Your task to perform on an android device: change notifications settings Image 0: 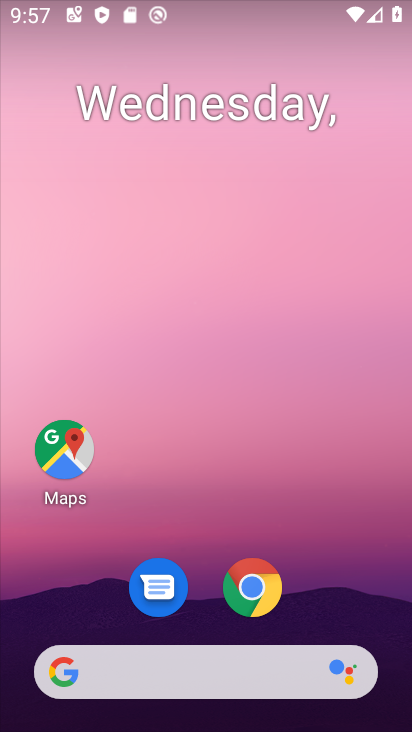
Step 0: press home button
Your task to perform on an android device: change notifications settings Image 1: 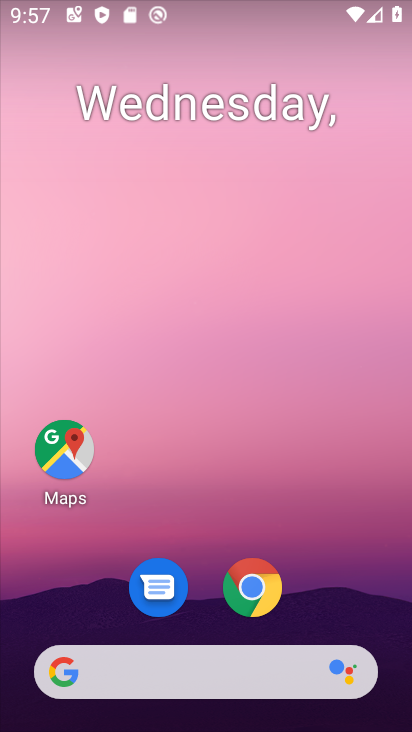
Step 1: click (348, 600)
Your task to perform on an android device: change notifications settings Image 2: 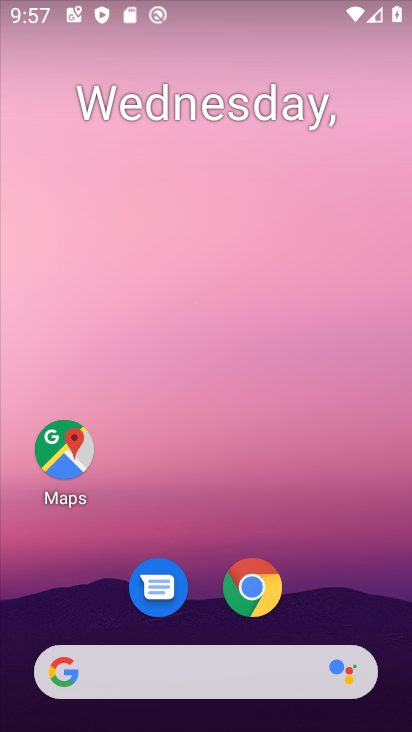
Step 2: drag from (343, 614) to (315, 75)
Your task to perform on an android device: change notifications settings Image 3: 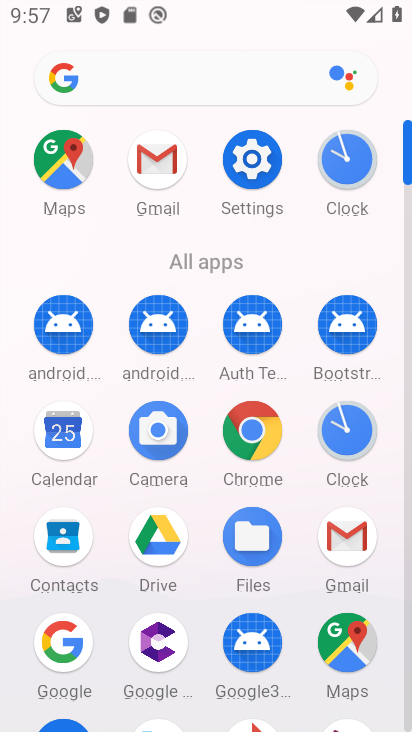
Step 3: click (250, 161)
Your task to perform on an android device: change notifications settings Image 4: 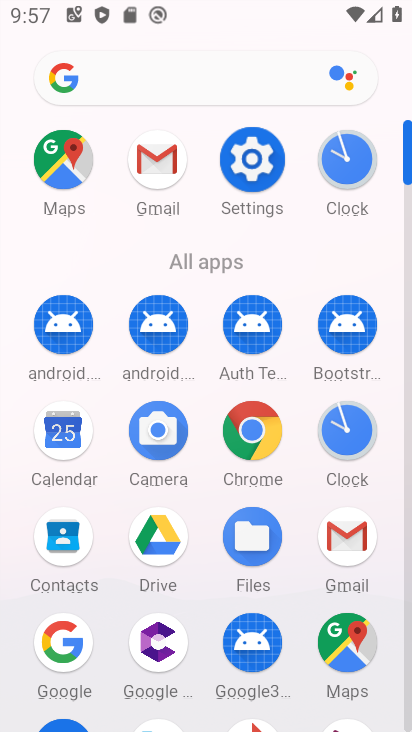
Step 4: click (243, 169)
Your task to perform on an android device: change notifications settings Image 5: 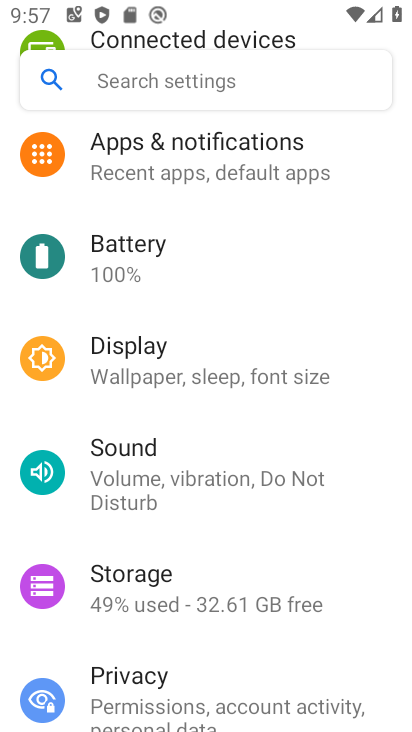
Step 5: click (170, 197)
Your task to perform on an android device: change notifications settings Image 6: 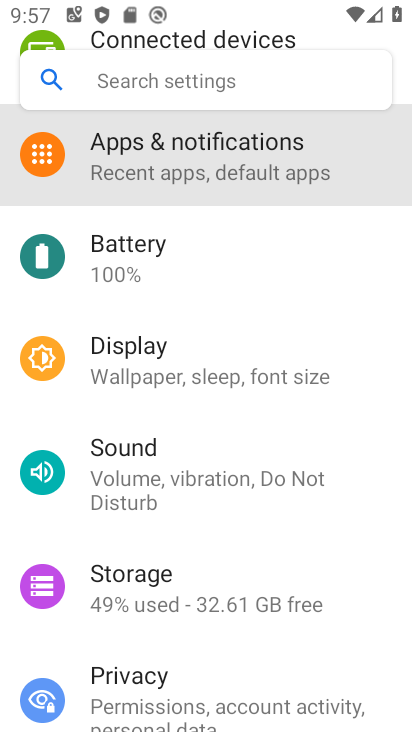
Step 6: click (192, 136)
Your task to perform on an android device: change notifications settings Image 7: 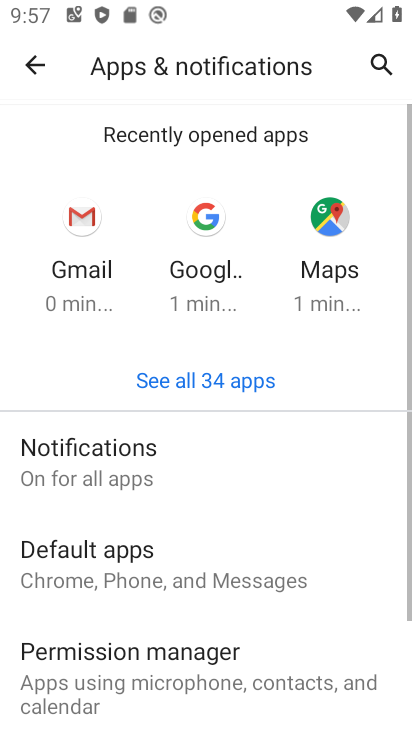
Step 7: click (73, 454)
Your task to perform on an android device: change notifications settings Image 8: 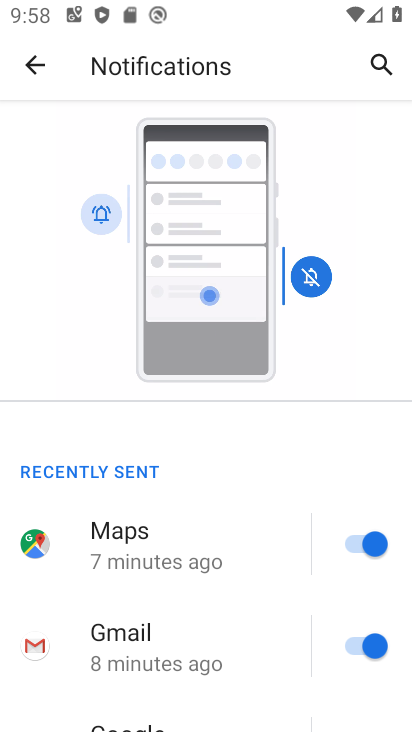
Step 8: drag from (349, 441) to (349, 53)
Your task to perform on an android device: change notifications settings Image 9: 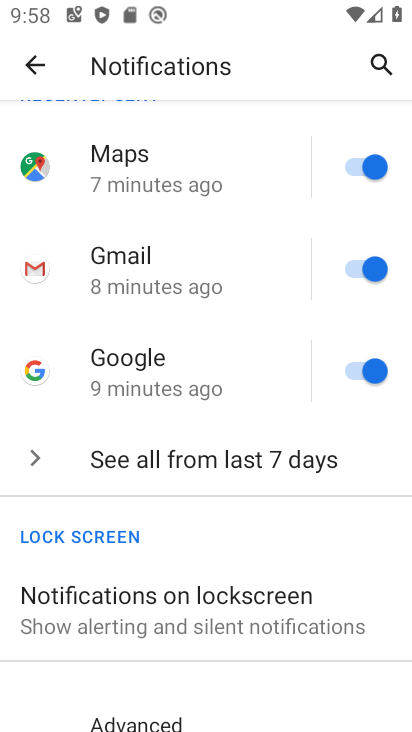
Step 9: drag from (329, 530) to (305, 219)
Your task to perform on an android device: change notifications settings Image 10: 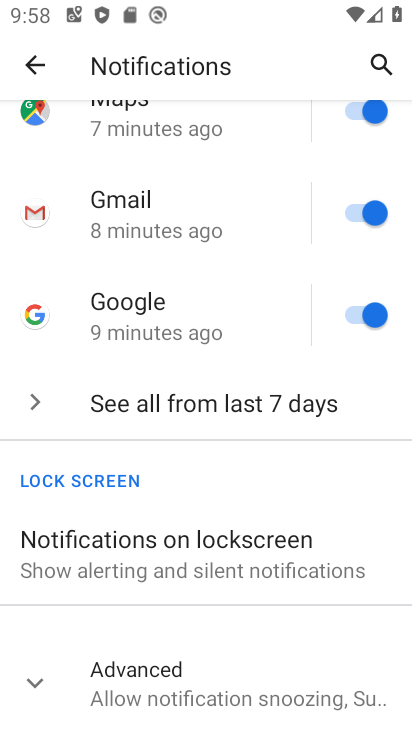
Step 10: click (369, 215)
Your task to perform on an android device: change notifications settings Image 11: 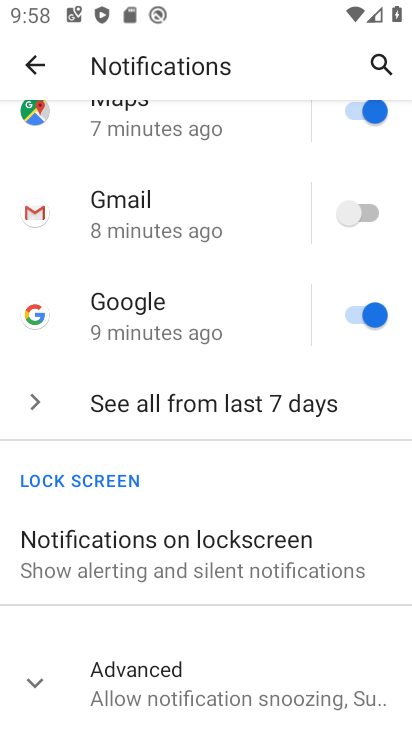
Step 11: task complete